Your task to perform on an android device: Open maps Image 0: 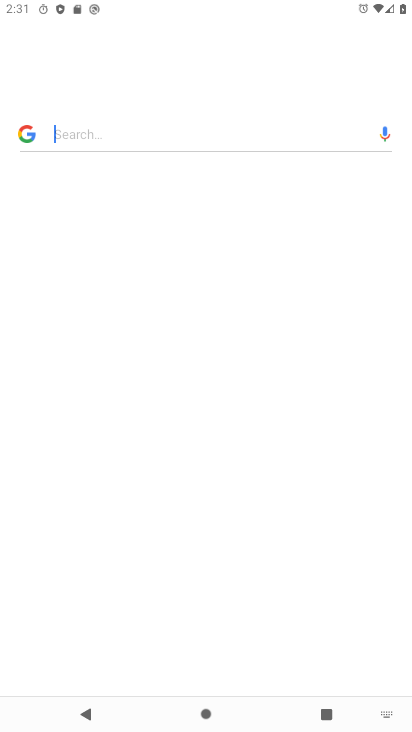
Step 0: drag from (211, 677) to (214, 7)
Your task to perform on an android device: Open maps Image 1: 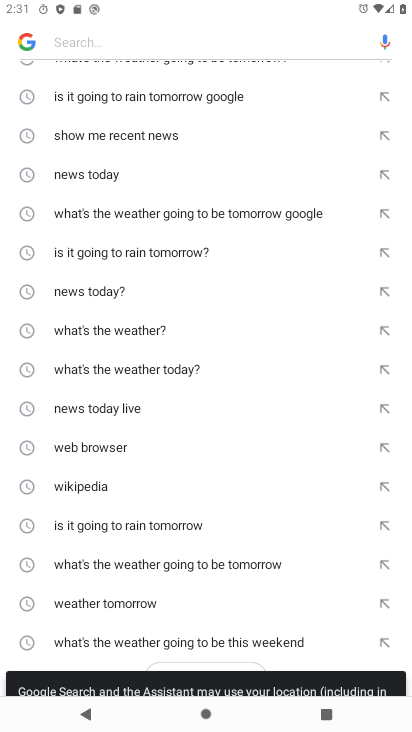
Step 1: press home button
Your task to perform on an android device: Open maps Image 2: 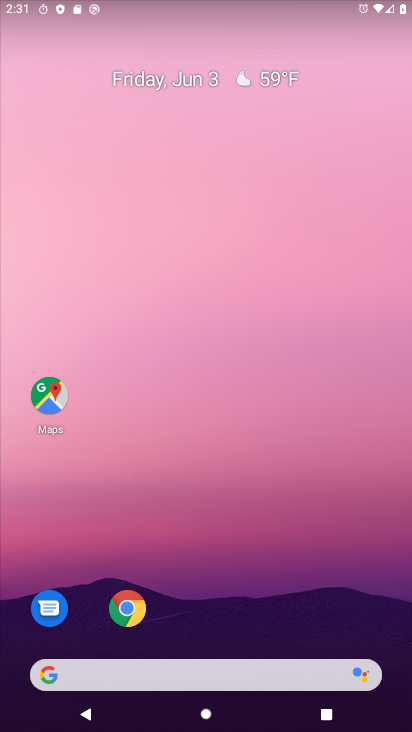
Step 2: click (51, 409)
Your task to perform on an android device: Open maps Image 3: 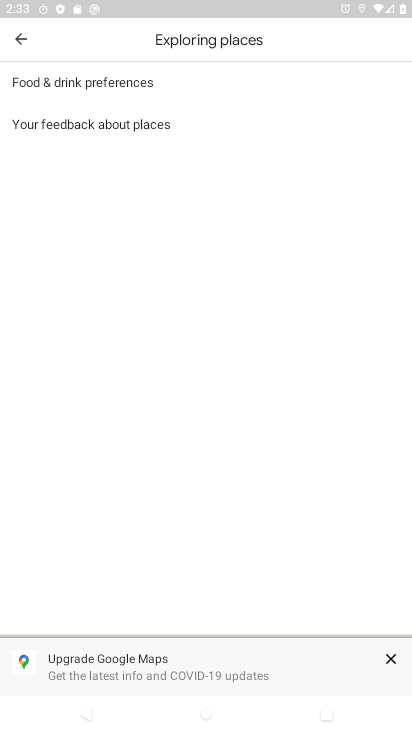
Step 3: task complete